Your task to perform on an android device: Open internet settings Image 0: 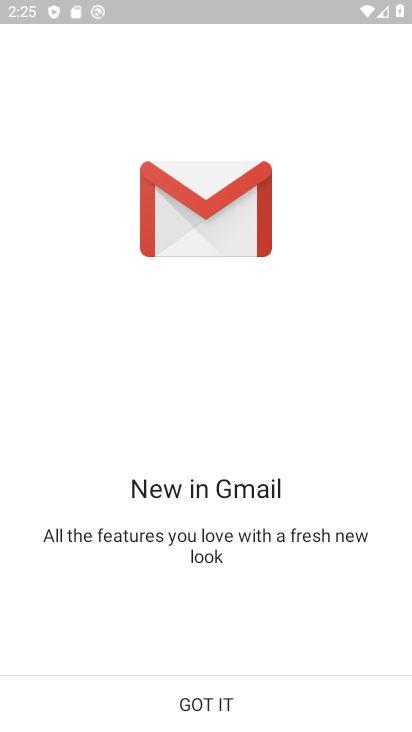
Step 0: press home button
Your task to perform on an android device: Open internet settings Image 1: 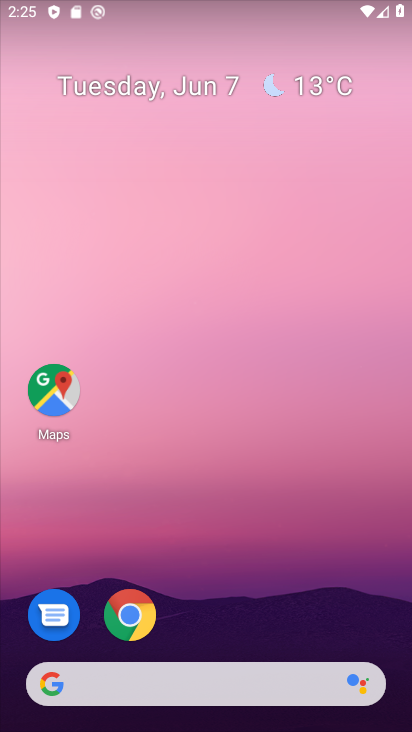
Step 1: drag from (257, 418) to (302, 199)
Your task to perform on an android device: Open internet settings Image 2: 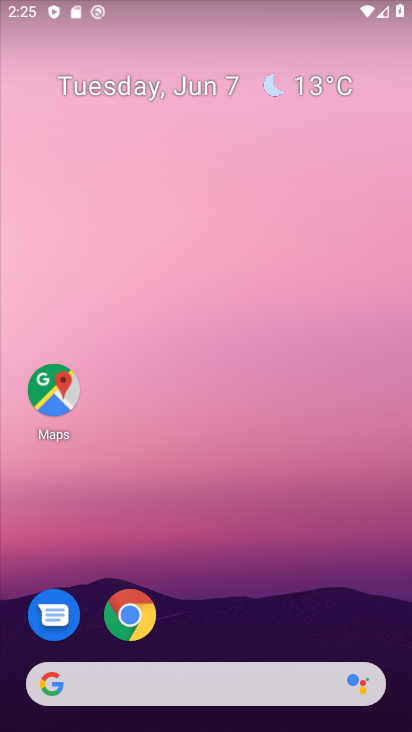
Step 2: drag from (231, 620) to (315, 173)
Your task to perform on an android device: Open internet settings Image 3: 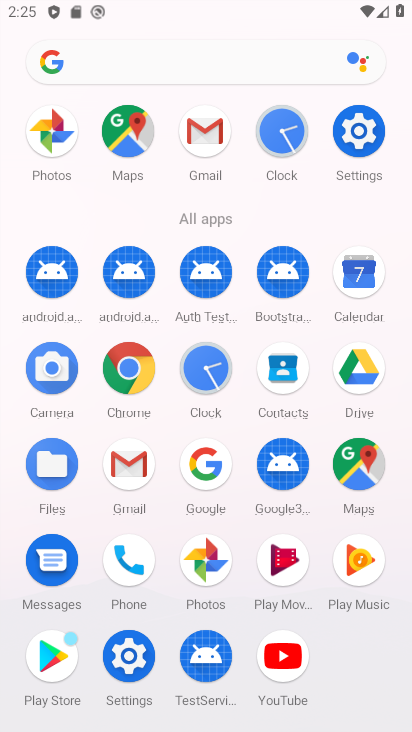
Step 3: click (120, 664)
Your task to perform on an android device: Open internet settings Image 4: 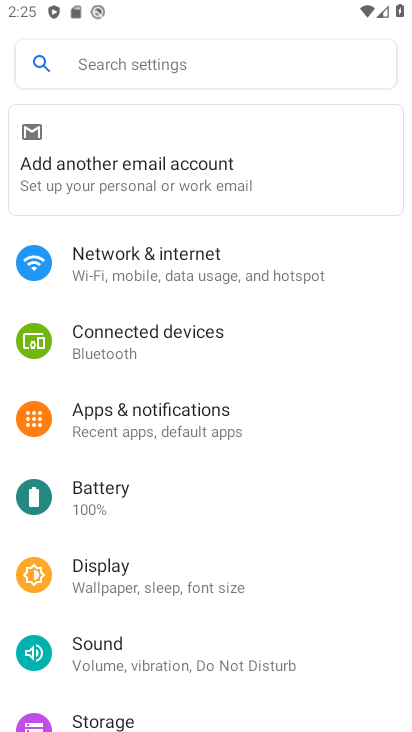
Step 4: click (252, 282)
Your task to perform on an android device: Open internet settings Image 5: 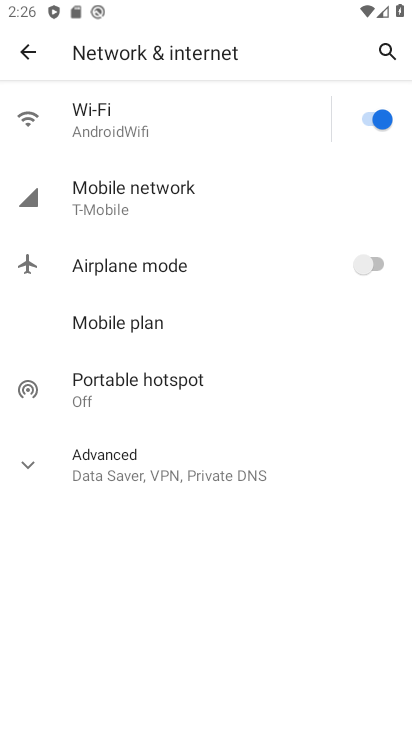
Step 5: click (221, 204)
Your task to perform on an android device: Open internet settings Image 6: 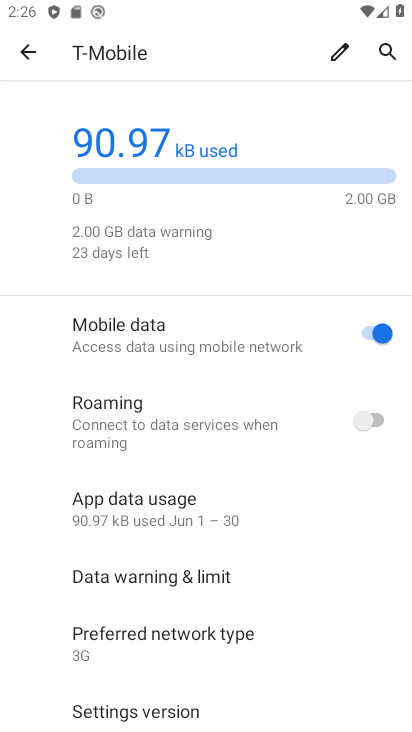
Step 6: task complete